Your task to perform on an android device: turn on showing notifications on the lock screen Image 0: 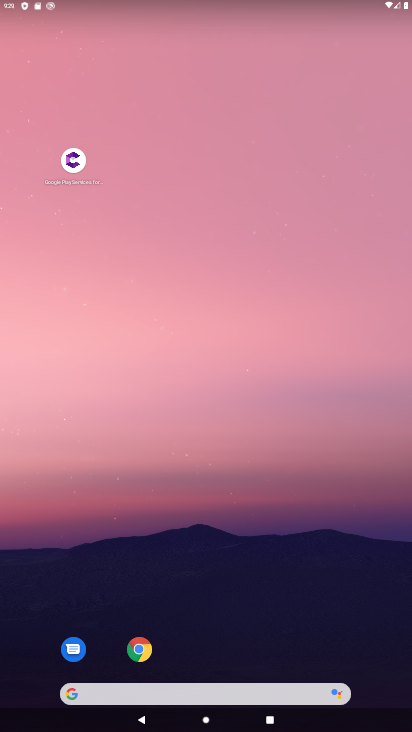
Step 0: drag from (220, 670) to (55, 10)
Your task to perform on an android device: turn on showing notifications on the lock screen Image 1: 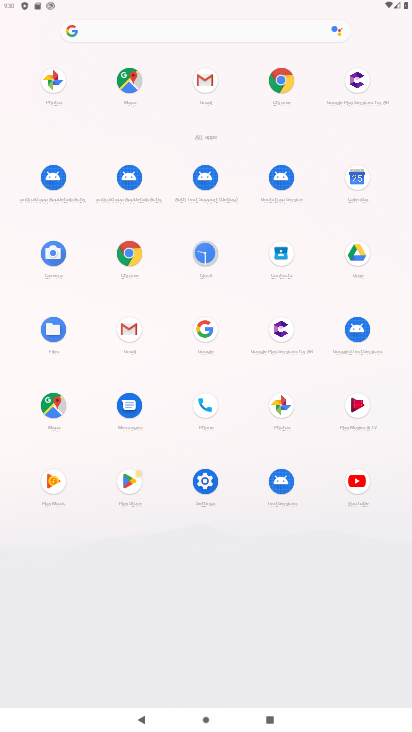
Step 1: click (202, 511)
Your task to perform on an android device: turn on showing notifications on the lock screen Image 2: 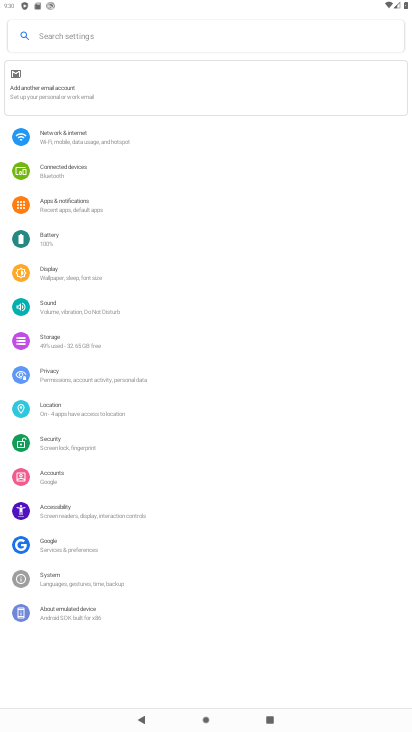
Step 2: click (88, 203)
Your task to perform on an android device: turn on showing notifications on the lock screen Image 3: 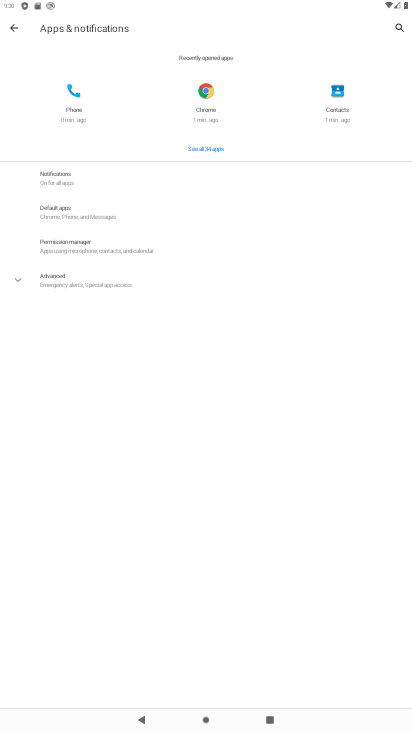
Step 3: click (67, 173)
Your task to perform on an android device: turn on showing notifications on the lock screen Image 4: 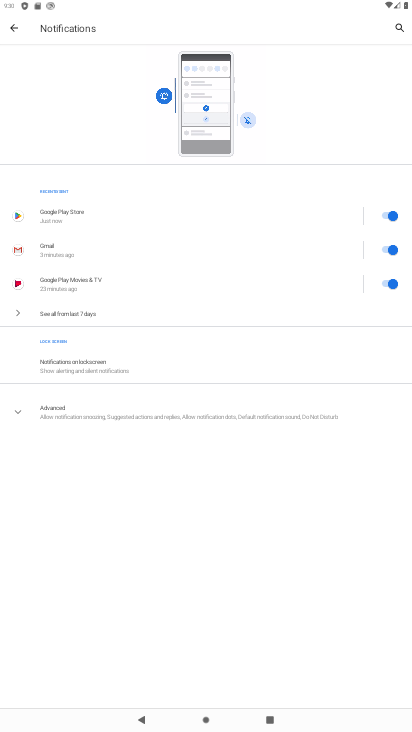
Step 4: click (76, 356)
Your task to perform on an android device: turn on showing notifications on the lock screen Image 5: 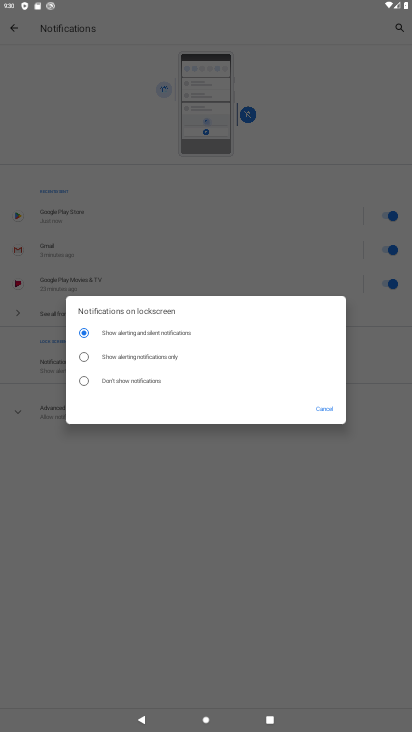
Step 5: task complete